Your task to perform on an android device: install app "AliExpress" Image 0: 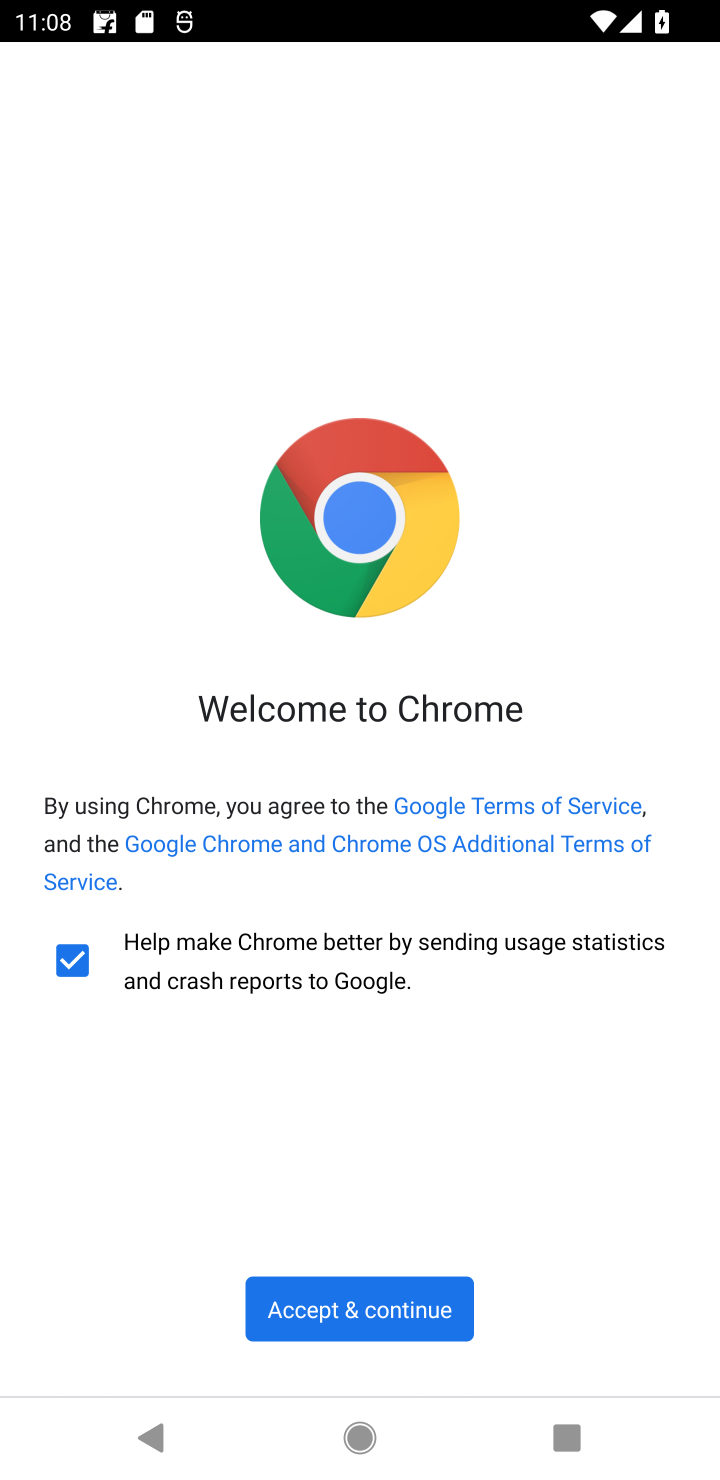
Step 0: press home button
Your task to perform on an android device: install app "AliExpress" Image 1: 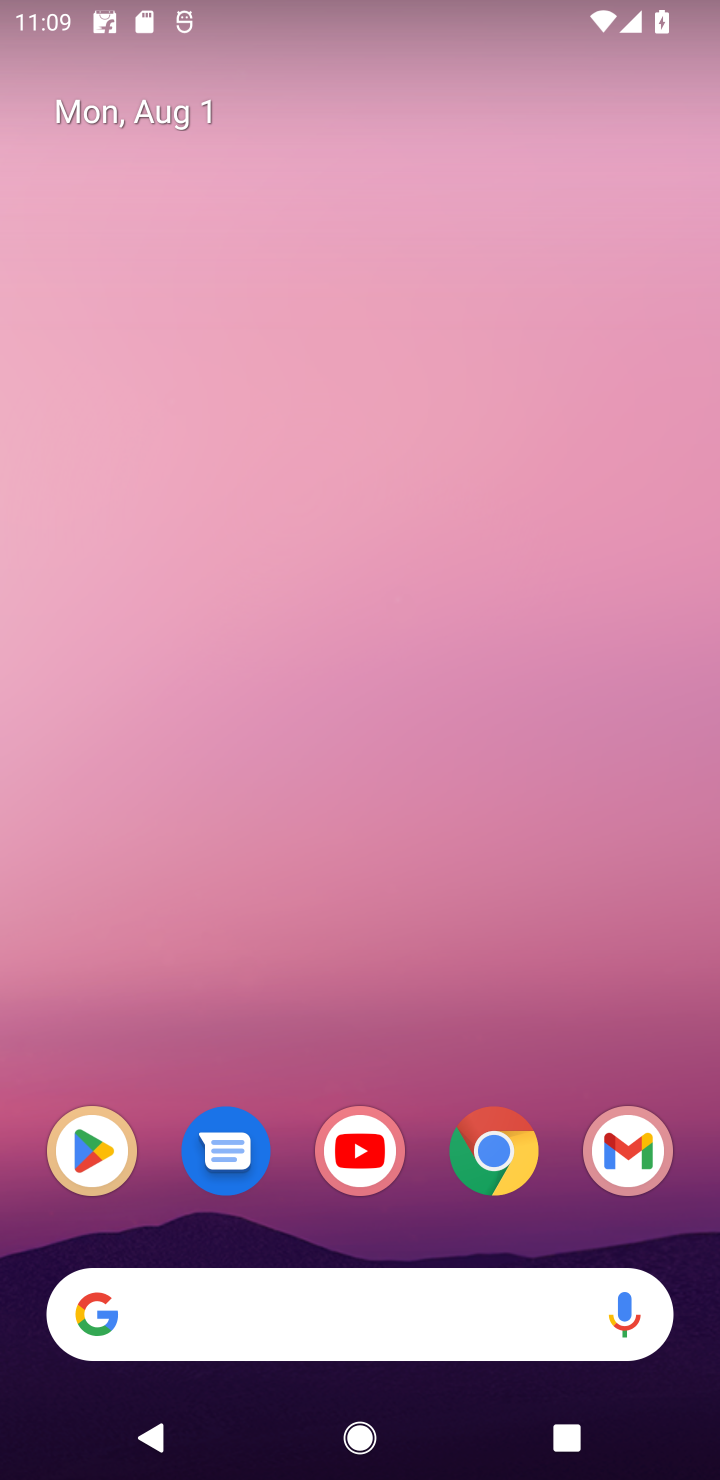
Step 1: click (102, 1159)
Your task to perform on an android device: install app "AliExpress" Image 2: 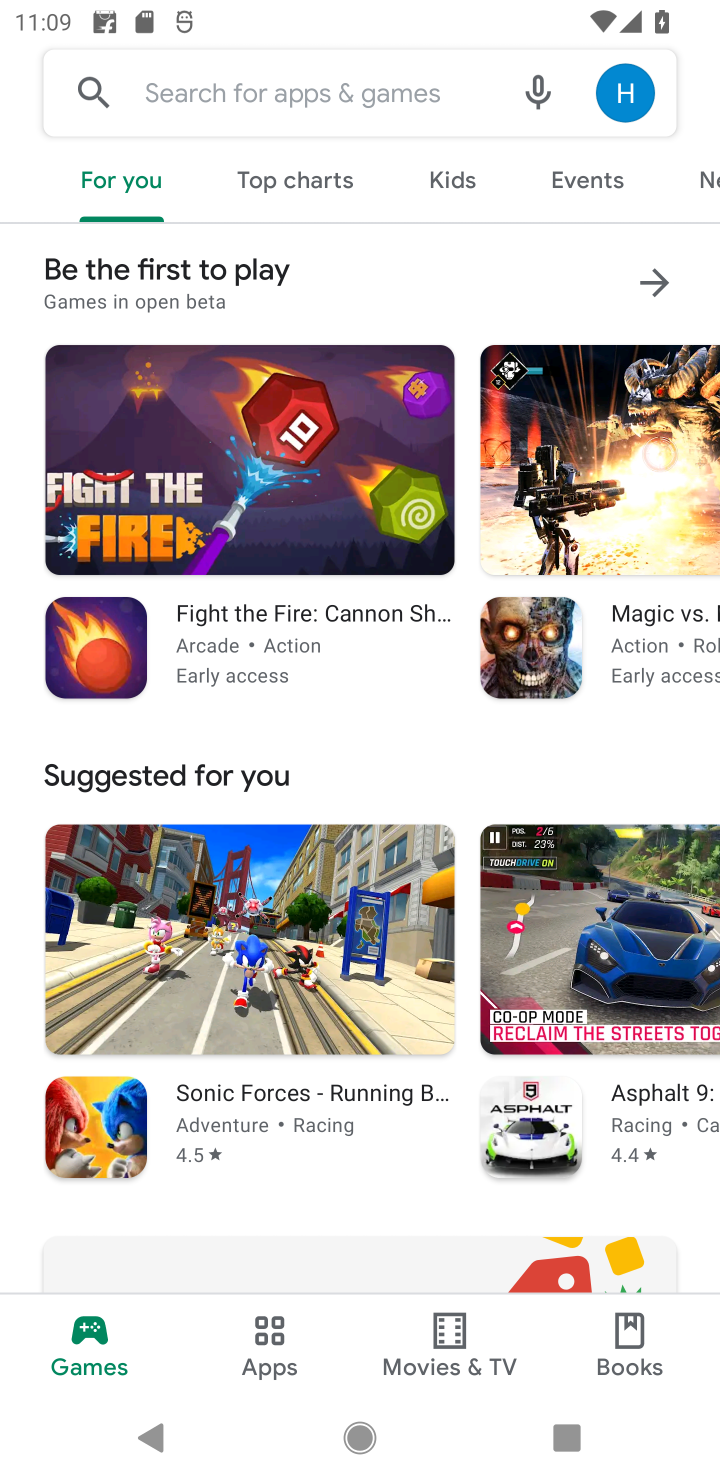
Step 2: click (399, 107)
Your task to perform on an android device: install app "AliExpress" Image 3: 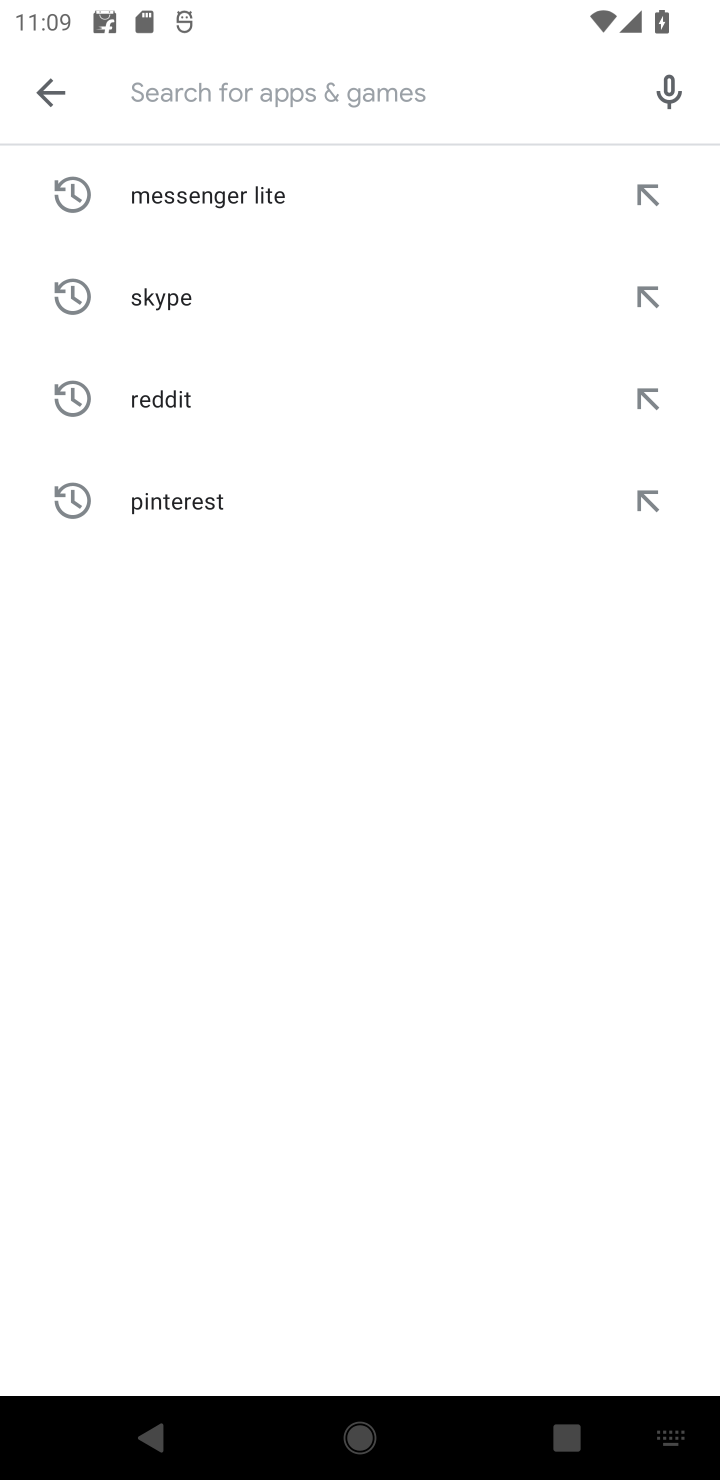
Step 3: type "AliExpress"
Your task to perform on an android device: install app "AliExpress" Image 4: 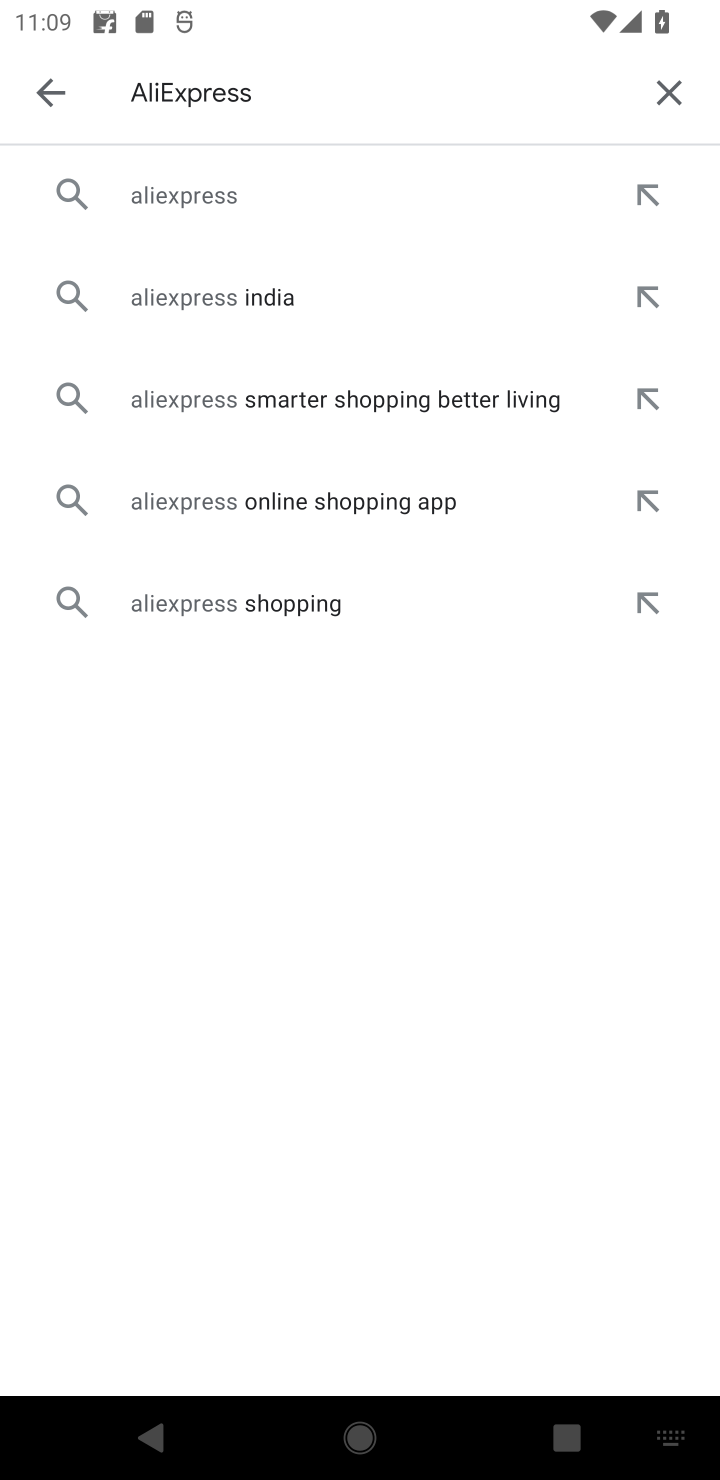
Step 4: click (249, 211)
Your task to perform on an android device: install app "AliExpress" Image 5: 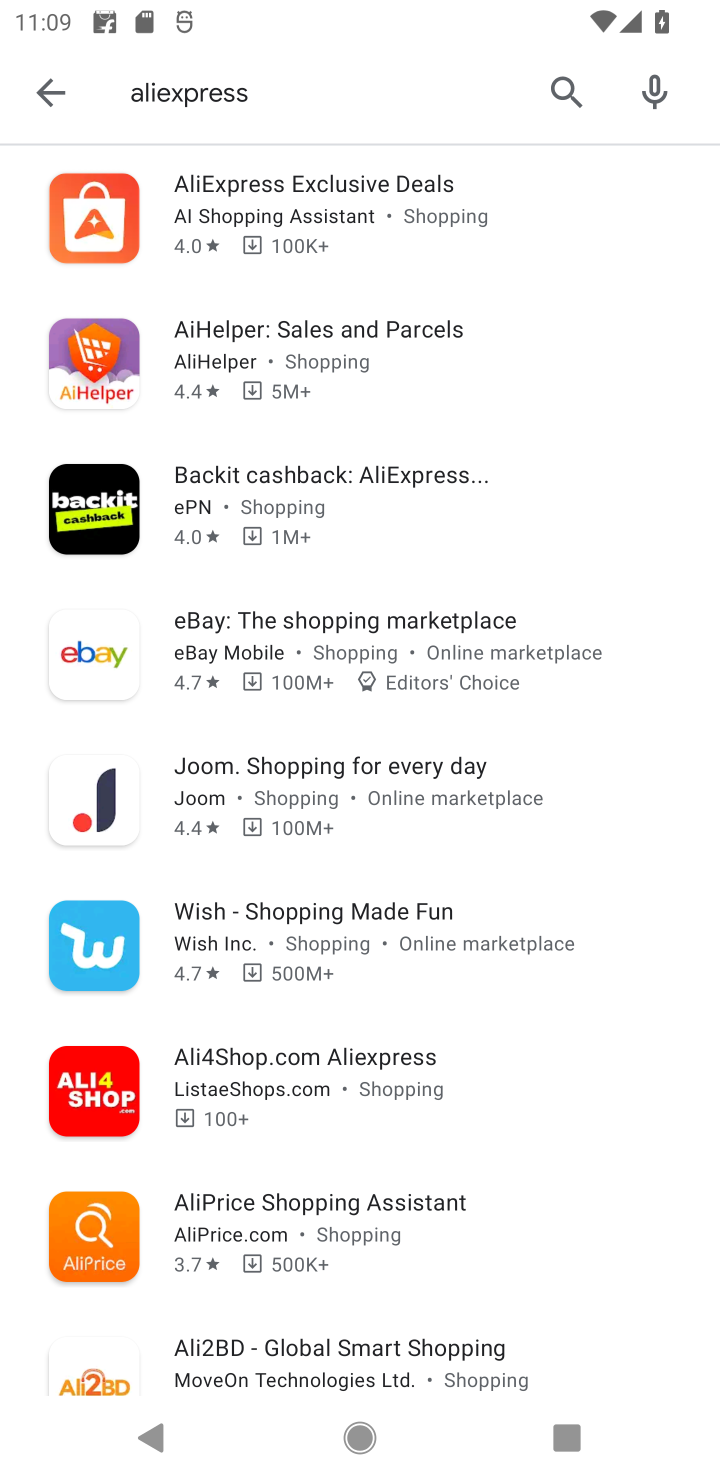
Step 5: click (317, 221)
Your task to perform on an android device: install app "AliExpress" Image 6: 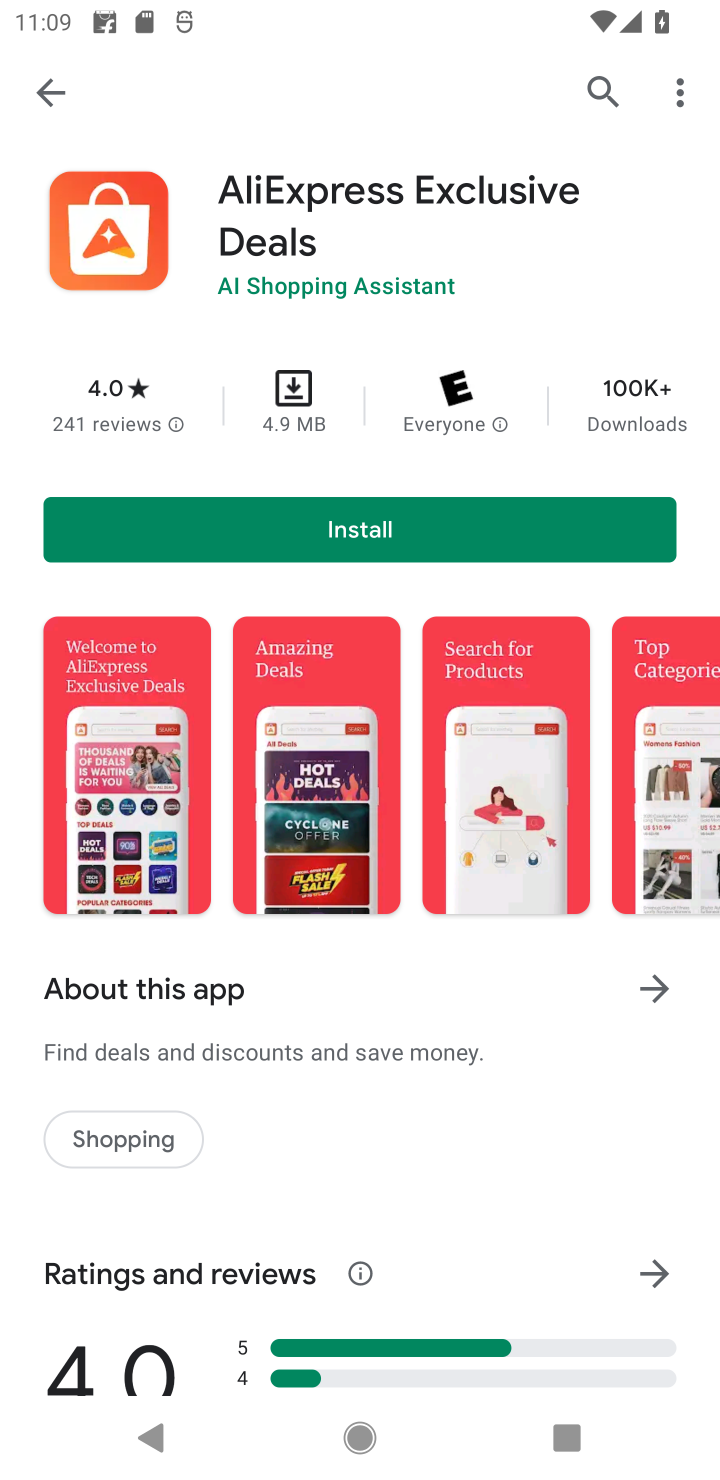
Step 6: click (416, 532)
Your task to perform on an android device: install app "AliExpress" Image 7: 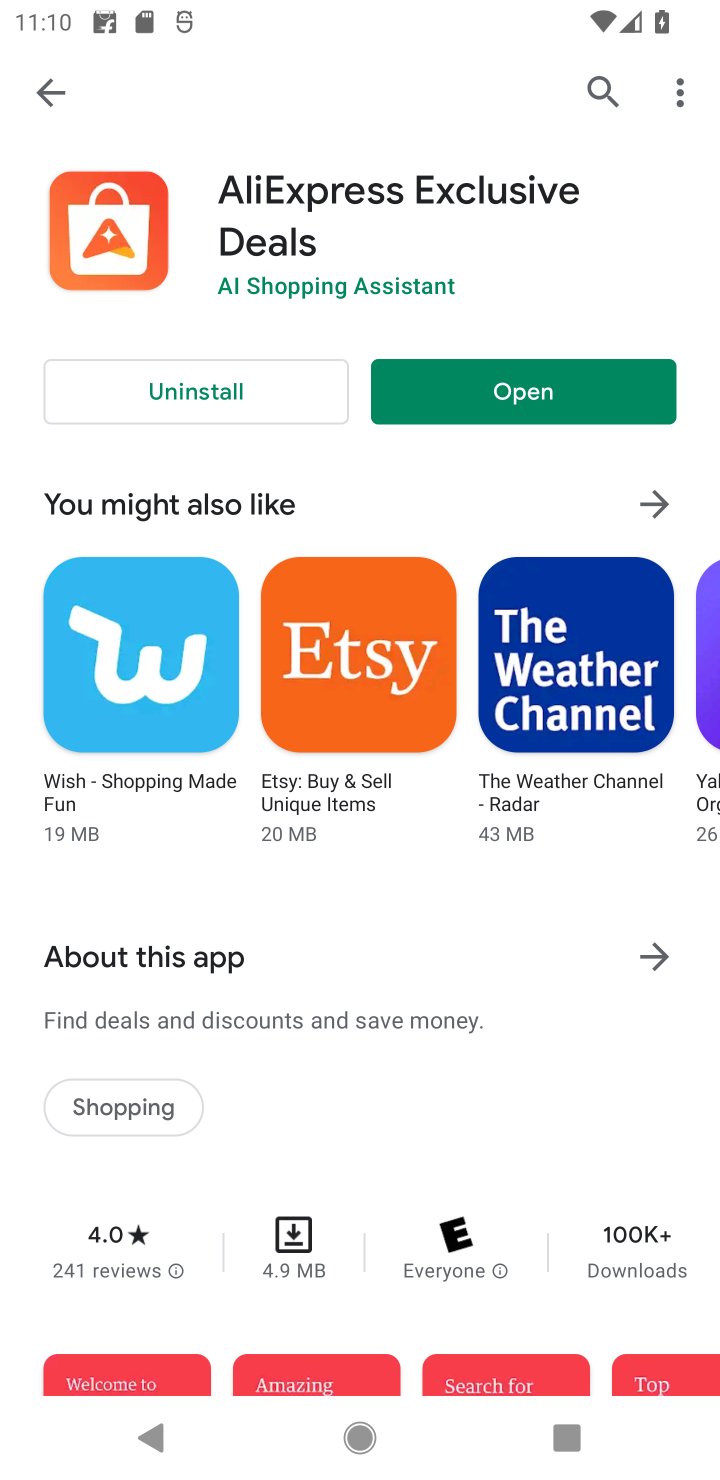
Step 7: task complete